Your task to perform on an android device: allow notifications from all sites in the chrome app Image 0: 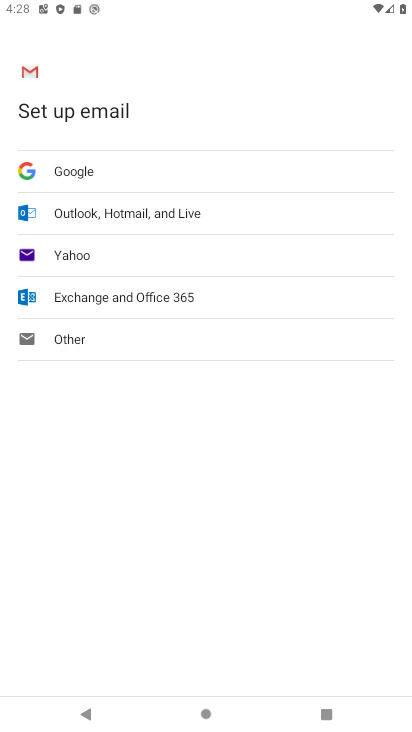
Step 0: press home button
Your task to perform on an android device: allow notifications from all sites in the chrome app Image 1: 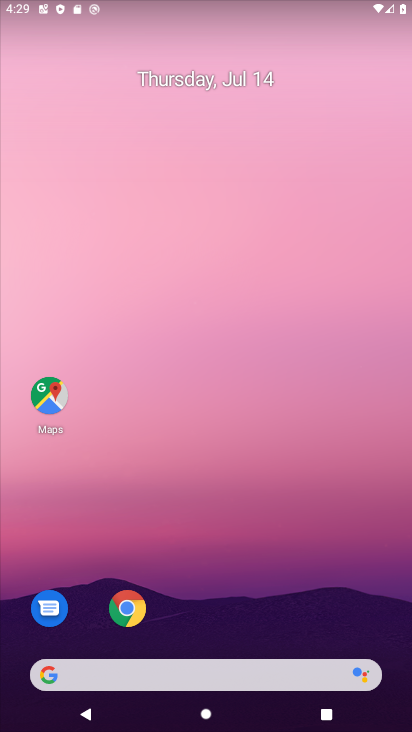
Step 1: click (124, 608)
Your task to perform on an android device: allow notifications from all sites in the chrome app Image 2: 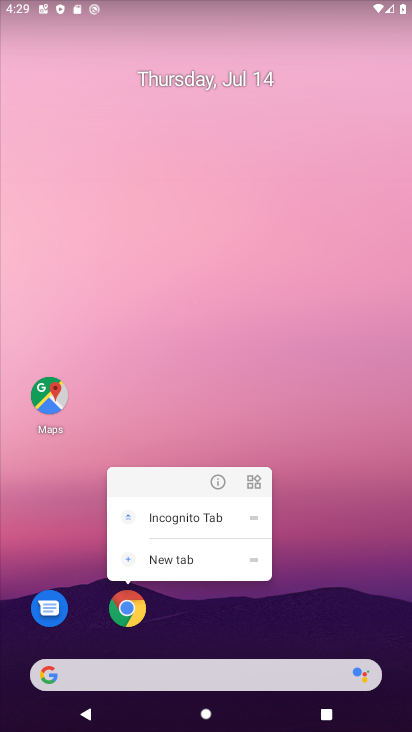
Step 2: click (94, 603)
Your task to perform on an android device: allow notifications from all sites in the chrome app Image 3: 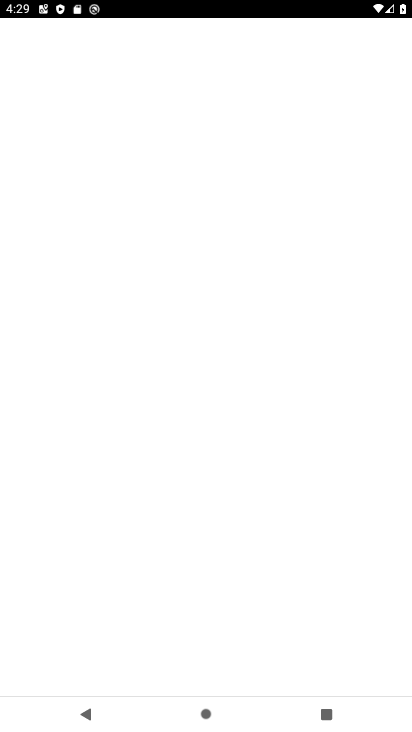
Step 3: click (119, 615)
Your task to perform on an android device: allow notifications from all sites in the chrome app Image 4: 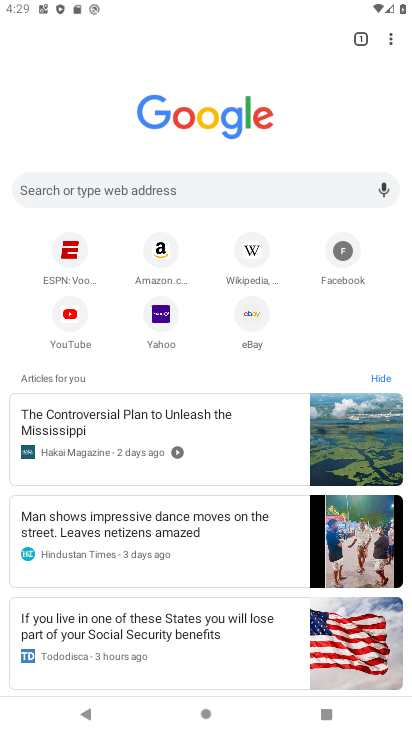
Step 4: click (395, 39)
Your task to perform on an android device: allow notifications from all sites in the chrome app Image 5: 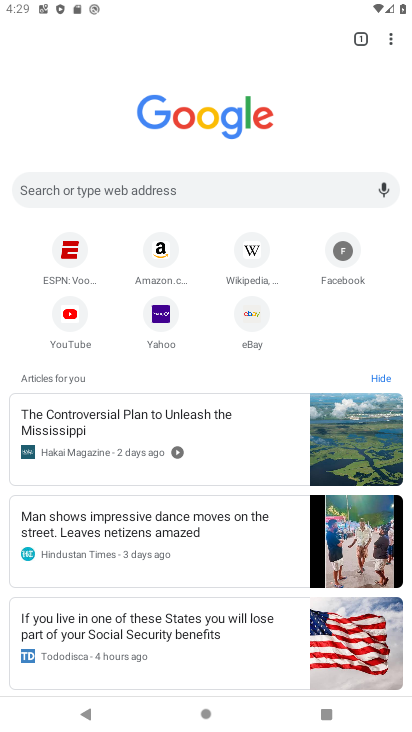
Step 5: click (384, 37)
Your task to perform on an android device: allow notifications from all sites in the chrome app Image 6: 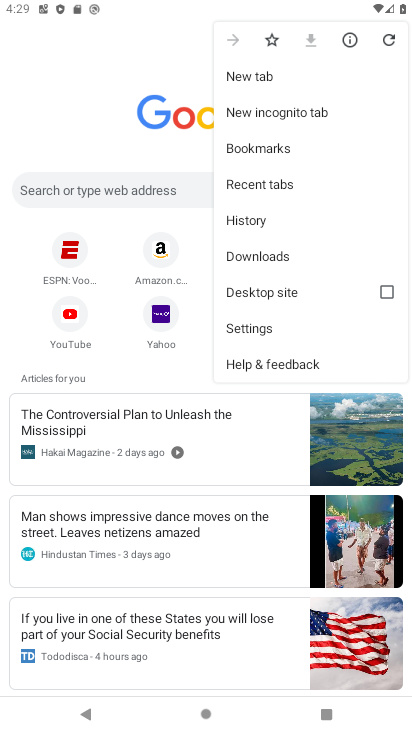
Step 6: click (279, 329)
Your task to perform on an android device: allow notifications from all sites in the chrome app Image 7: 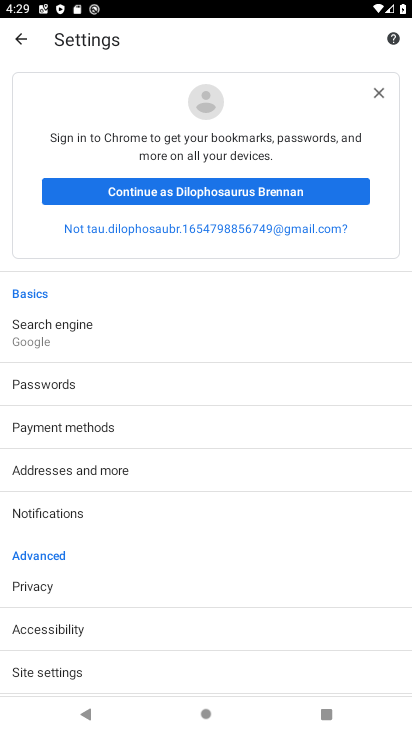
Step 7: task complete